Your task to perform on an android device: check battery use Image 0: 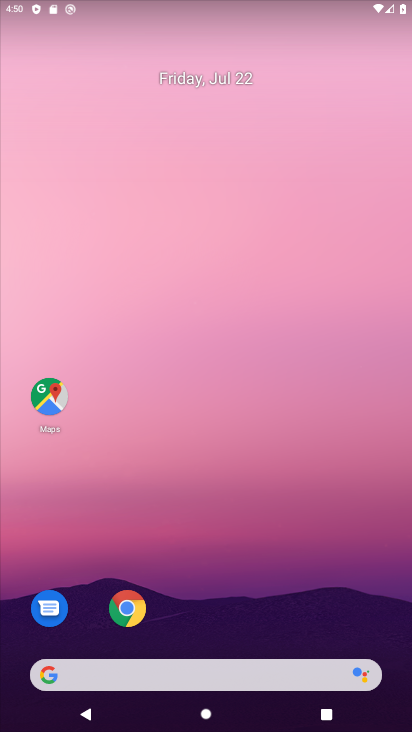
Step 0: drag from (284, 253) to (315, 88)
Your task to perform on an android device: check battery use Image 1: 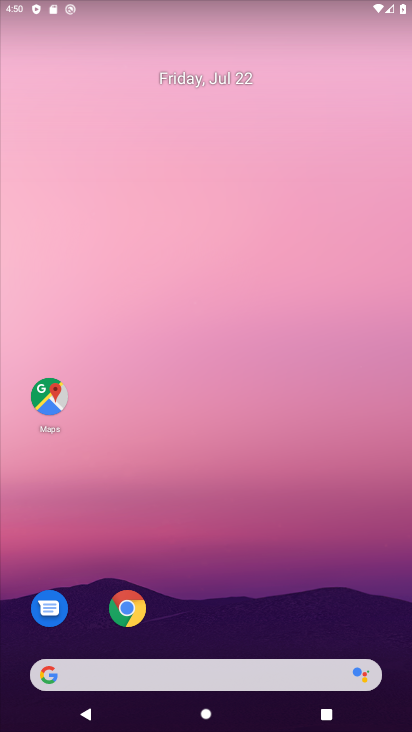
Step 1: drag from (279, 3) to (243, 463)
Your task to perform on an android device: check battery use Image 2: 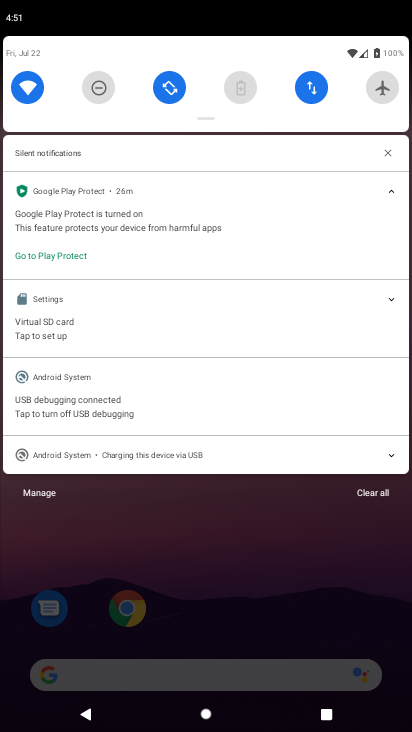
Step 2: click (247, 89)
Your task to perform on an android device: check battery use Image 3: 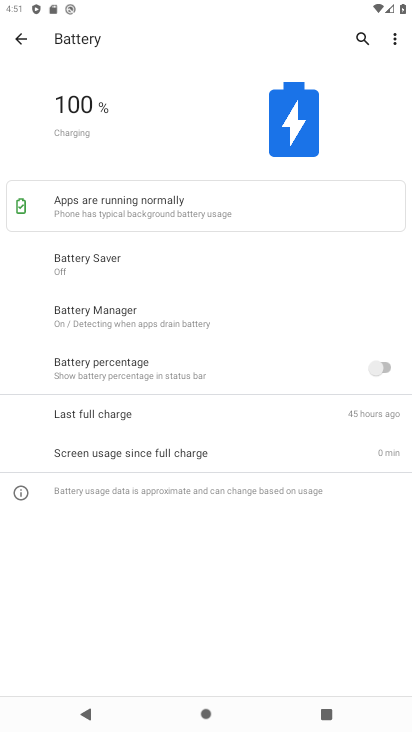
Step 3: task complete